Your task to perform on an android device: find photos in the google photos app Image 0: 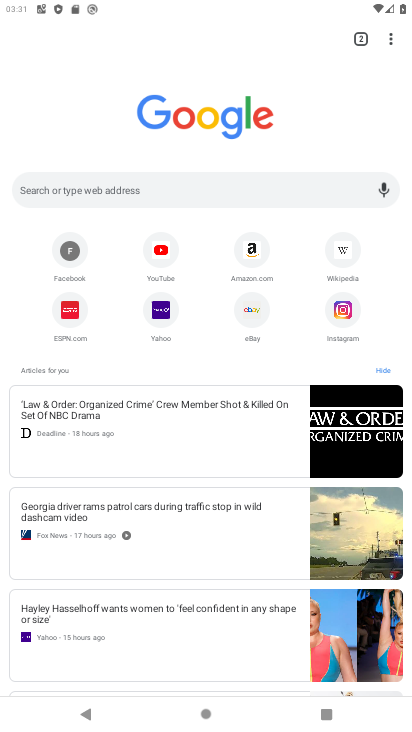
Step 0: press home button
Your task to perform on an android device: find photos in the google photos app Image 1: 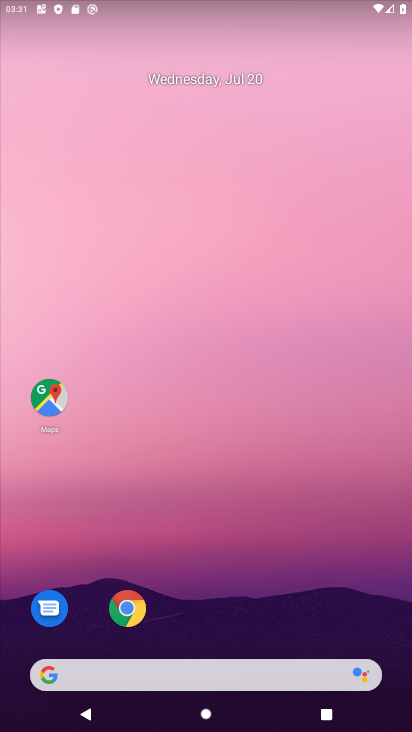
Step 1: drag from (393, 661) to (308, 200)
Your task to perform on an android device: find photos in the google photos app Image 2: 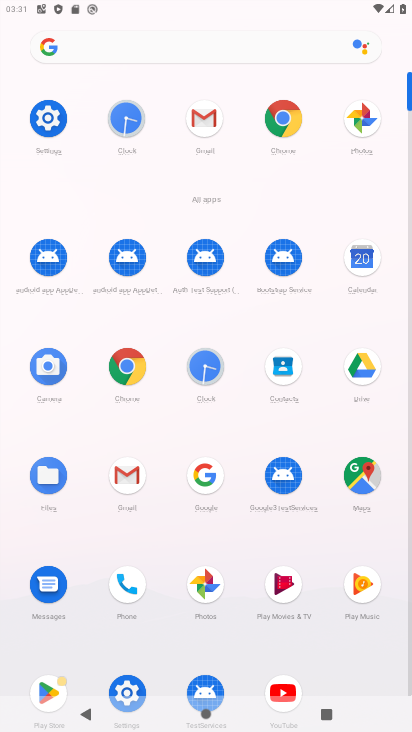
Step 2: click (212, 589)
Your task to perform on an android device: find photos in the google photos app Image 3: 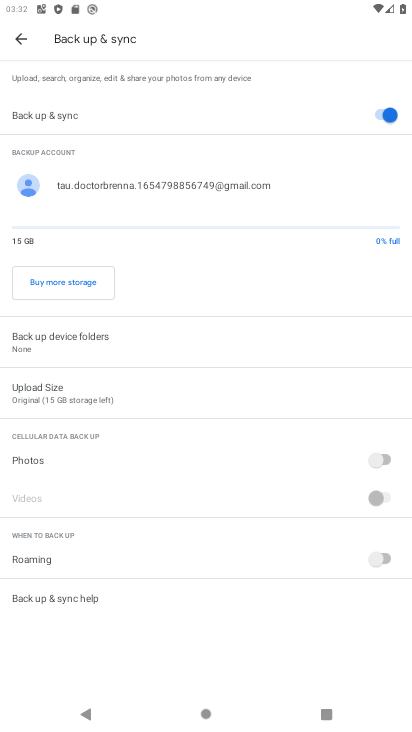
Step 3: click (18, 36)
Your task to perform on an android device: find photos in the google photos app Image 4: 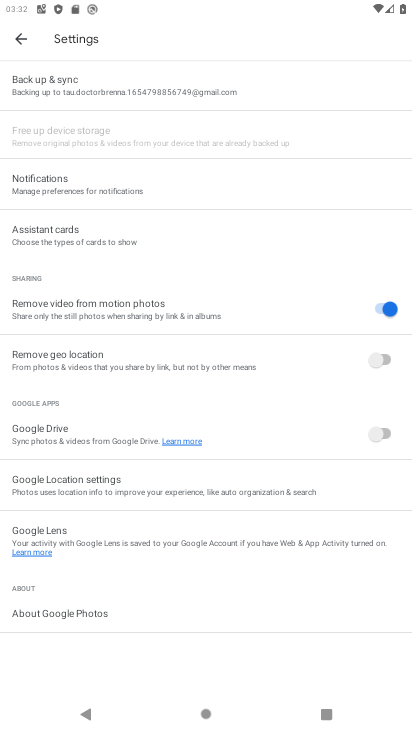
Step 4: click (18, 43)
Your task to perform on an android device: find photos in the google photos app Image 5: 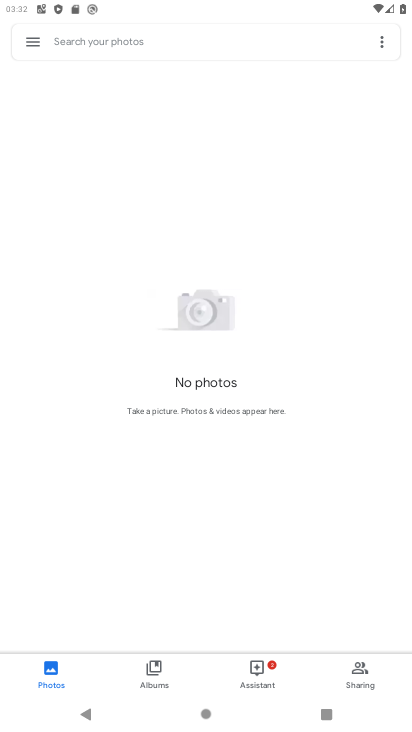
Step 5: click (61, 667)
Your task to perform on an android device: find photos in the google photos app Image 6: 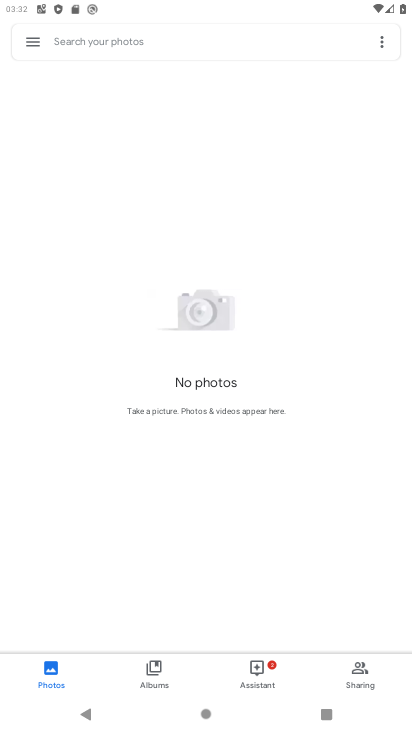
Step 6: task complete